Your task to perform on an android device: turn notification dots on Image 0: 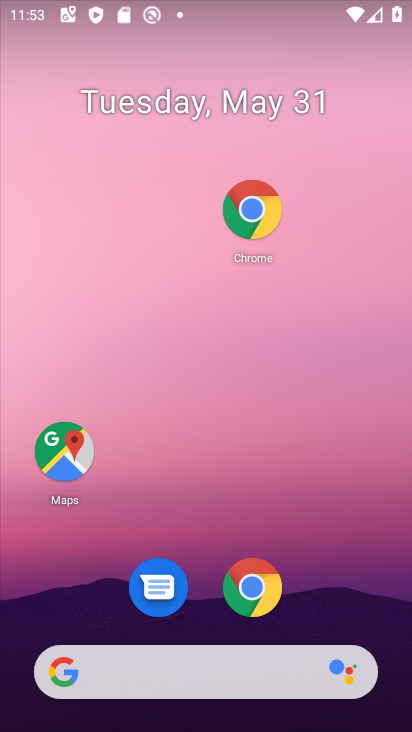
Step 0: drag from (345, 574) to (329, 258)
Your task to perform on an android device: turn notification dots on Image 1: 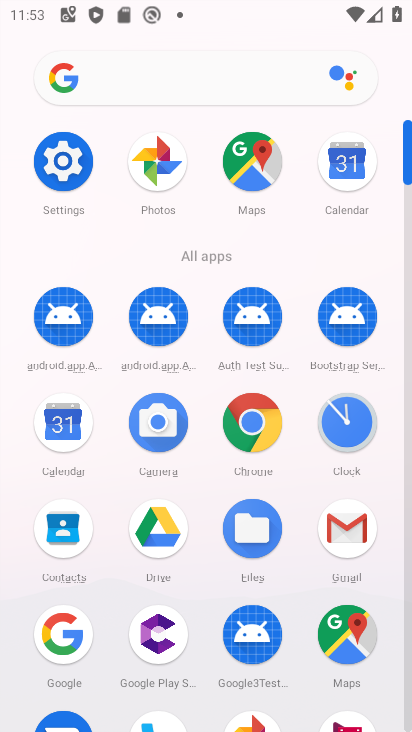
Step 1: click (71, 157)
Your task to perform on an android device: turn notification dots on Image 2: 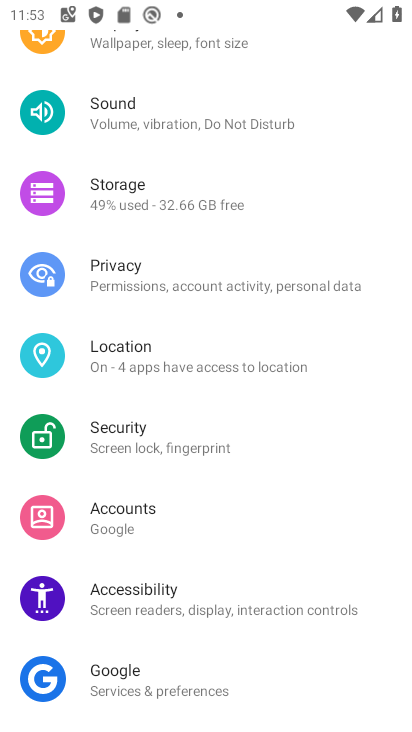
Step 2: drag from (192, 549) to (237, 146)
Your task to perform on an android device: turn notification dots on Image 3: 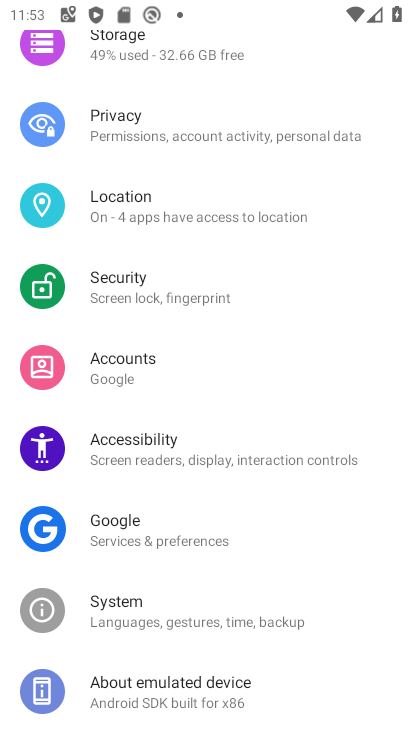
Step 3: drag from (128, 189) to (218, 663)
Your task to perform on an android device: turn notification dots on Image 4: 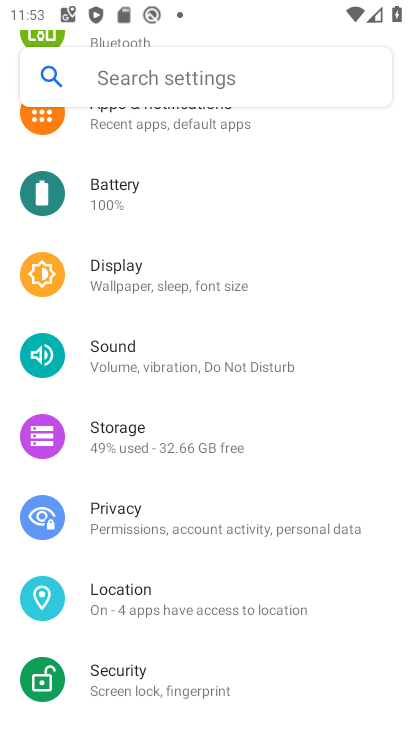
Step 4: click (235, 134)
Your task to perform on an android device: turn notification dots on Image 5: 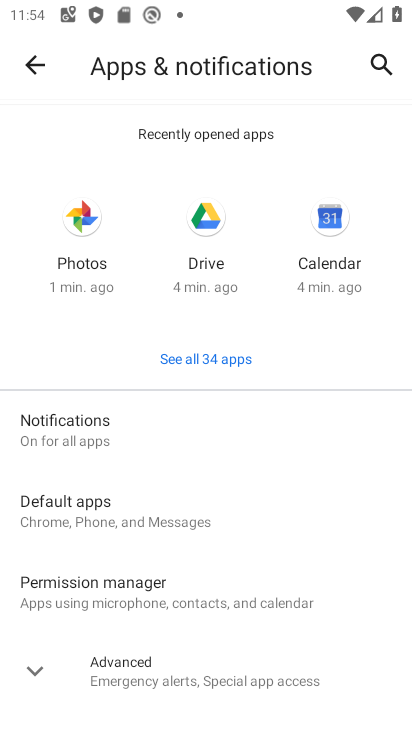
Step 5: click (155, 429)
Your task to perform on an android device: turn notification dots on Image 6: 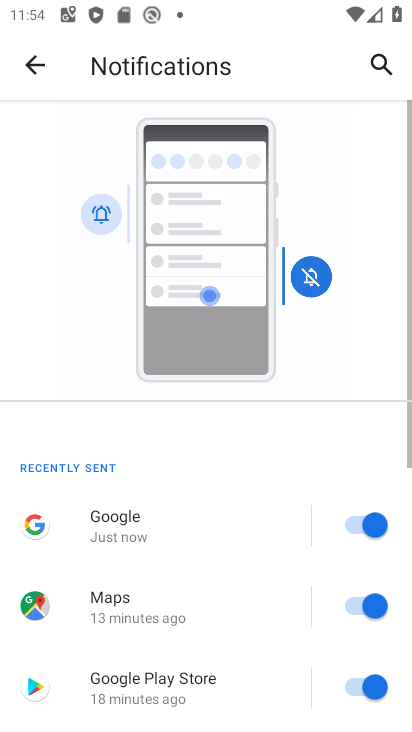
Step 6: drag from (241, 526) to (269, 159)
Your task to perform on an android device: turn notification dots on Image 7: 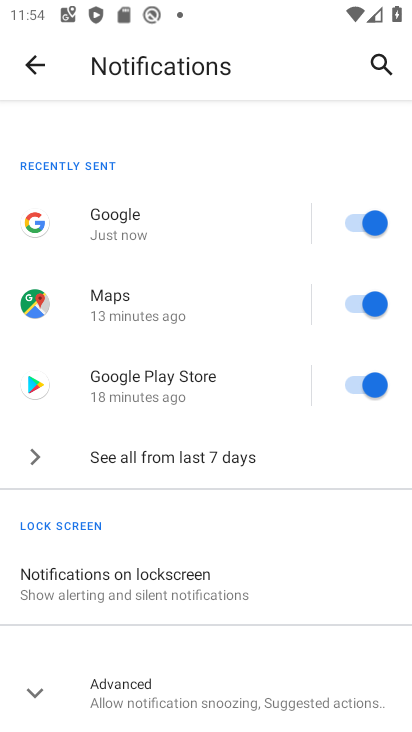
Step 7: click (234, 677)
Your task to perform on an android device: turn notification dots on Image 8: 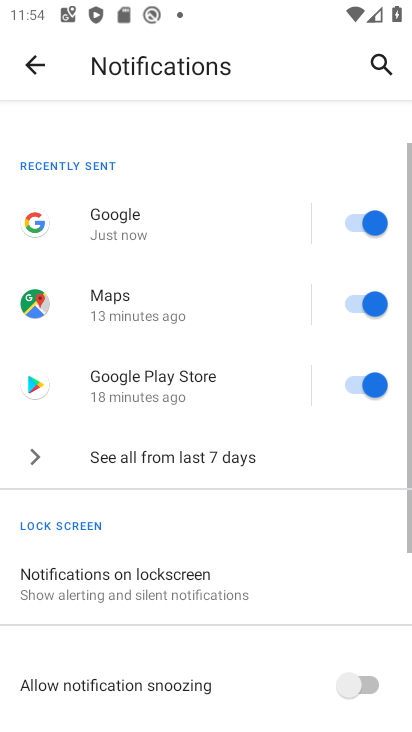
Step 8: task complete